Your task to perform on an android device: Search for a runner rug on Crate & Barrel. Image 0: 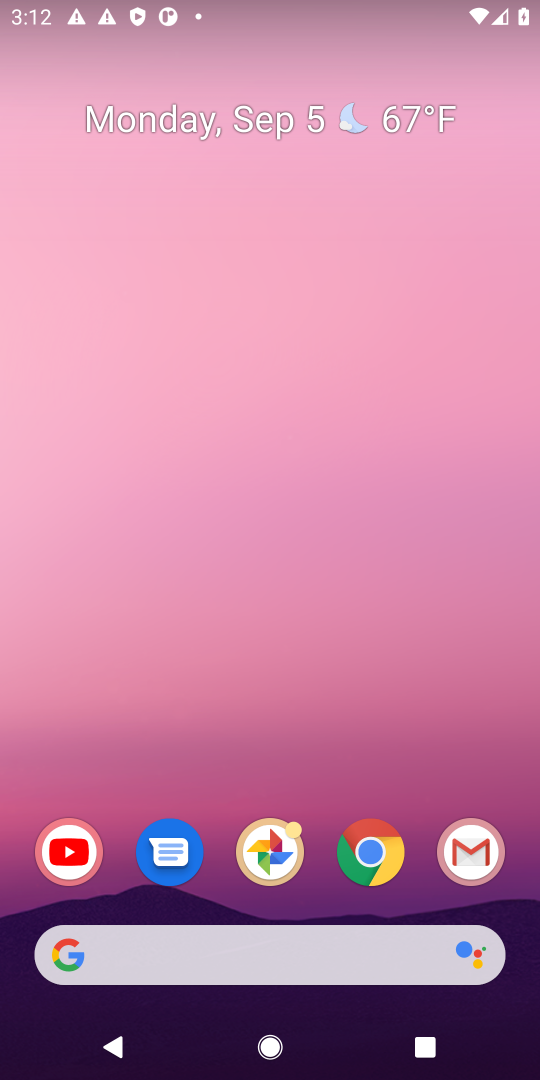
Step 0: click (372, 853)
Your task to perform on an android device: Search for a runner rug on Crate & Barrel. Image 1: 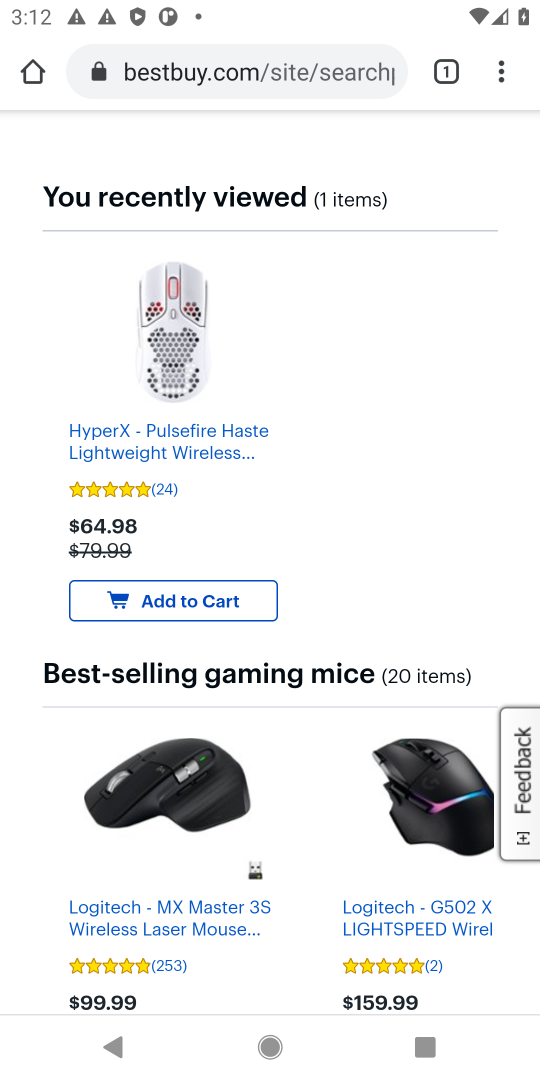
Step 1: click (284, 46)
Your task to perform on an android device: Search for a runner rug on Crate & Barrel. Image 2: 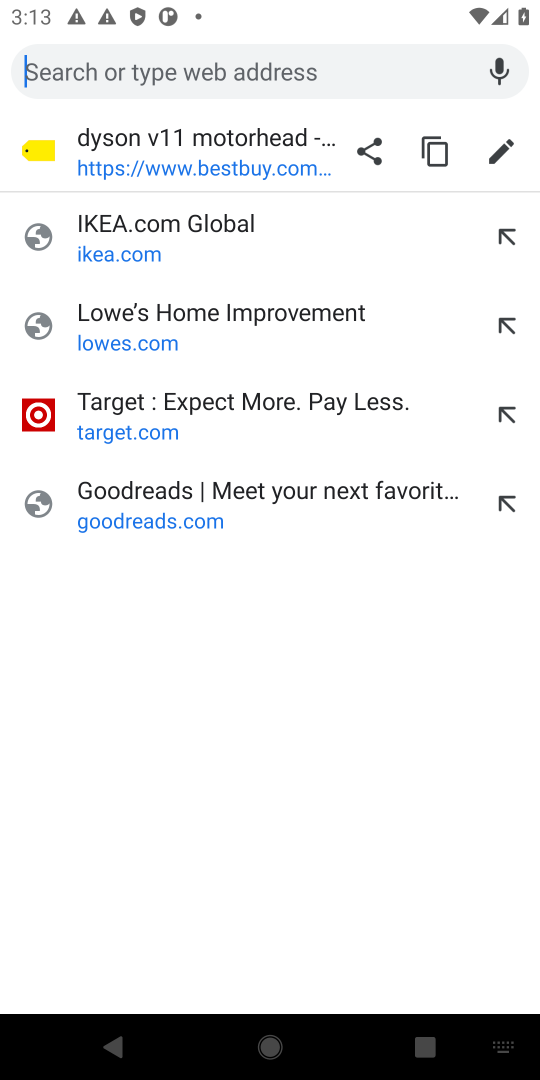
Step 2: type "Crate & Barrel"
Your task to perform on an android device: Search for a runner rug on Crate & Barrel. Image 3: 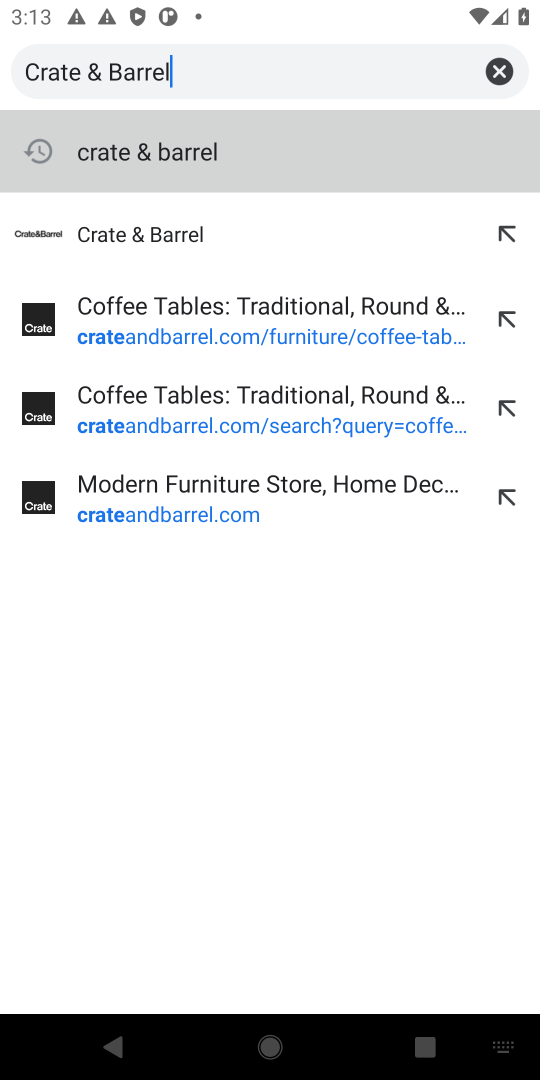
Step 3: click (134, 236)
Your task to perform on an android device: Search for a runner rug on Crate & Barrel. Image 4: 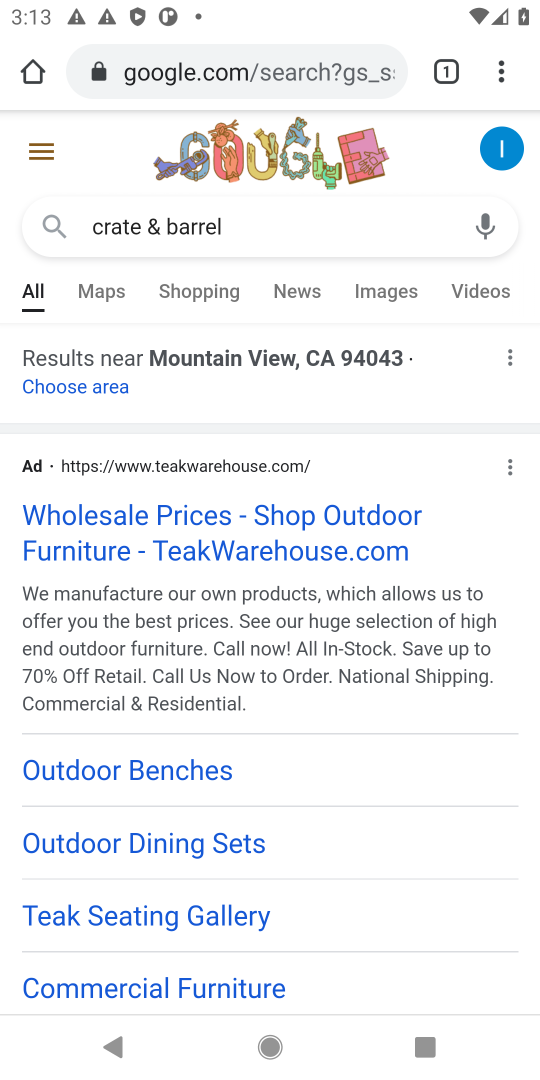
Step 4: drag from (338, 851) to (314, 486)
Your task to perform on an android device: Search for a runner rug on Crate & Barrel. Image 5: 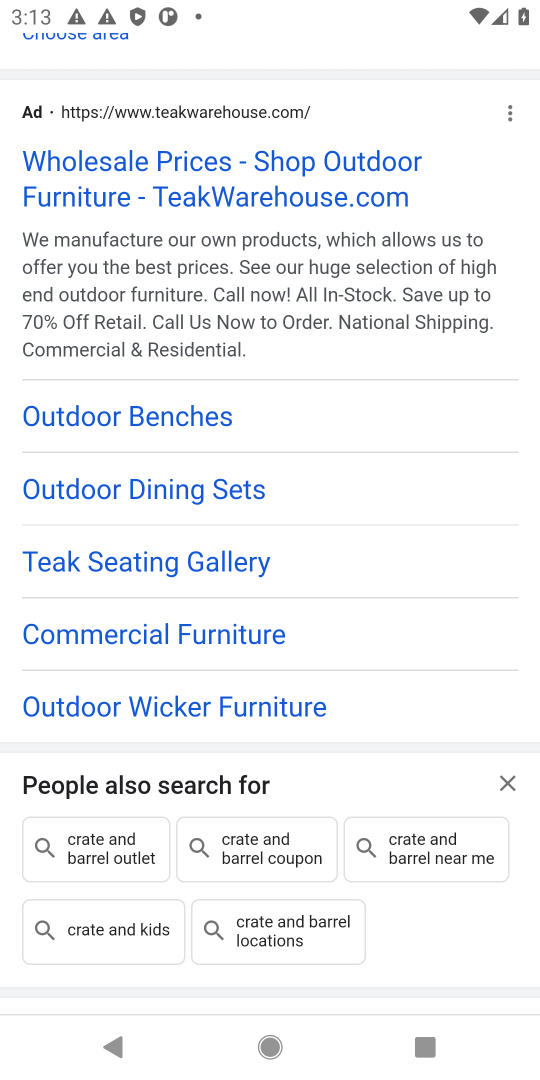
Step 5: drag from (337, 768) to (317, 250)
Your task to perform on an android device: Search for a runner rug on Crate & Barrel. Image 6: 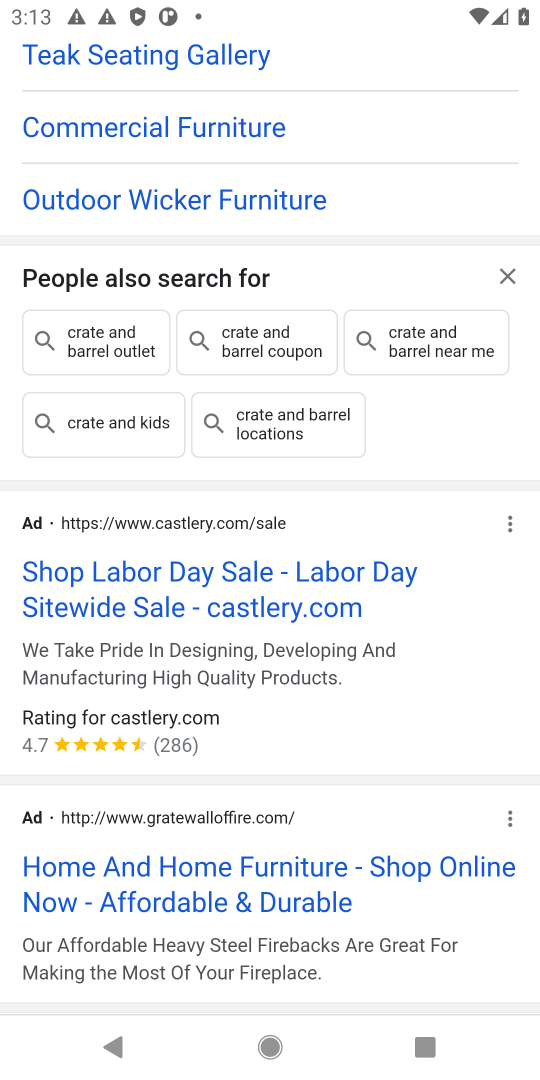
Step 6: drag from (334, 855) to (317, 297)
Your task to perform on an android device: Search for a runner rug on Crate & Barrel. Image 7: 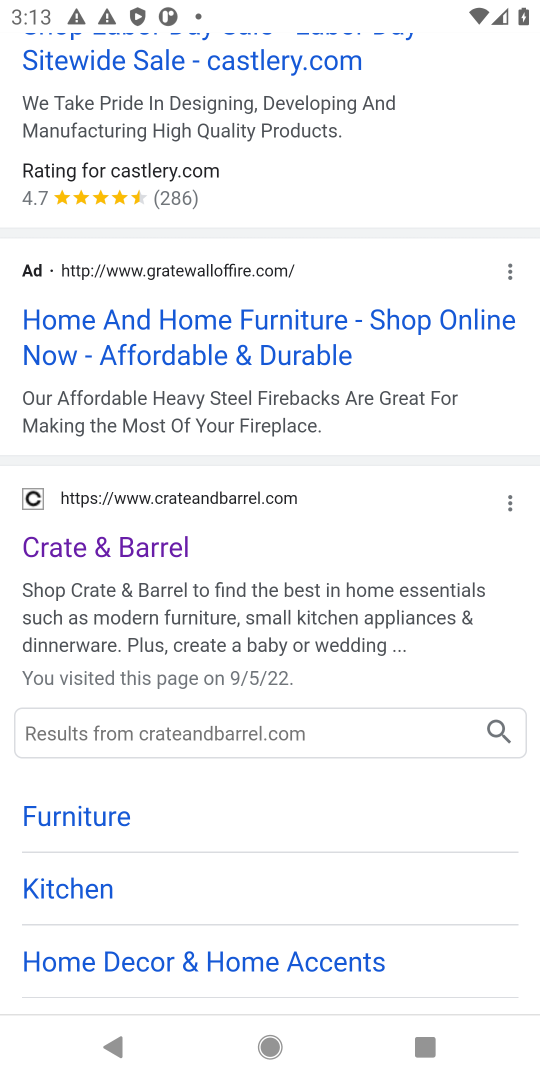
Step 7: click (88, 550)
Your task to perform on an android device: Search for a runner rug on Crate & Barrel. Image 8: 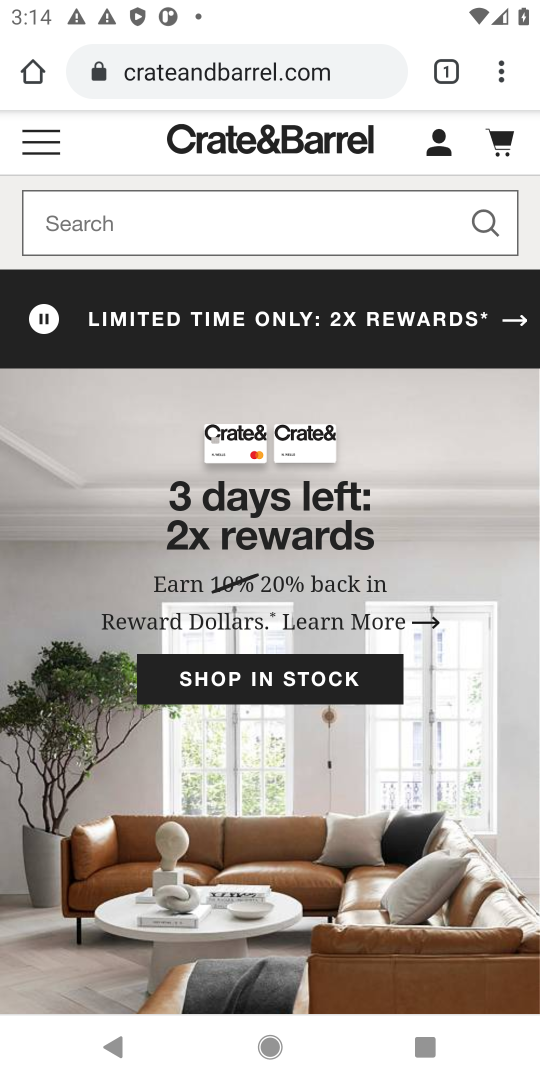
Step 8: click (282, 216)
Your task to perform on an android device: Search for a runner rug on Crate & Barrel. Image 9: 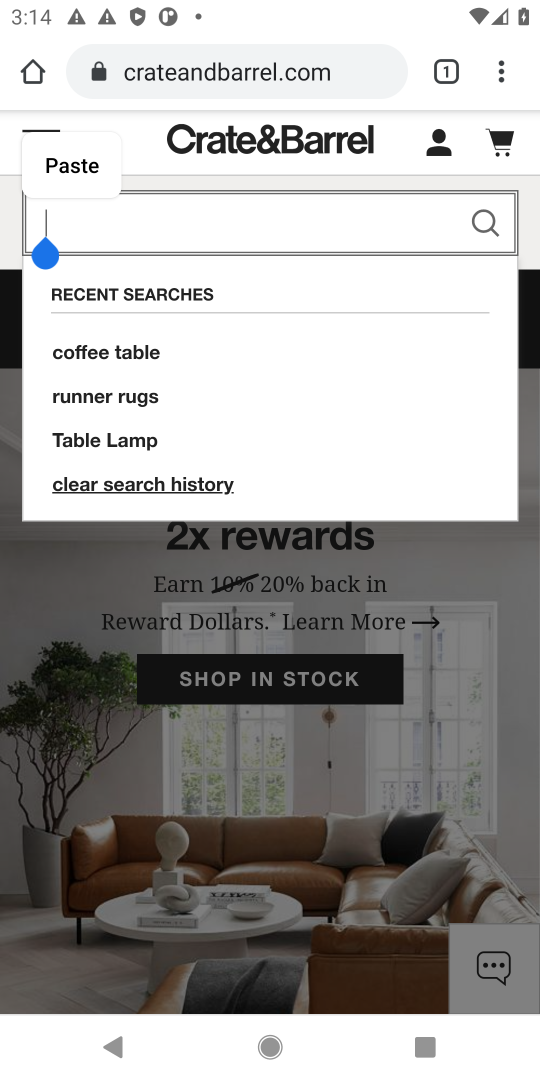
Step 9: click (93, 395)
Your task to perform on an android device: Search for a runner rug on Crate & Barrel. Image 10: 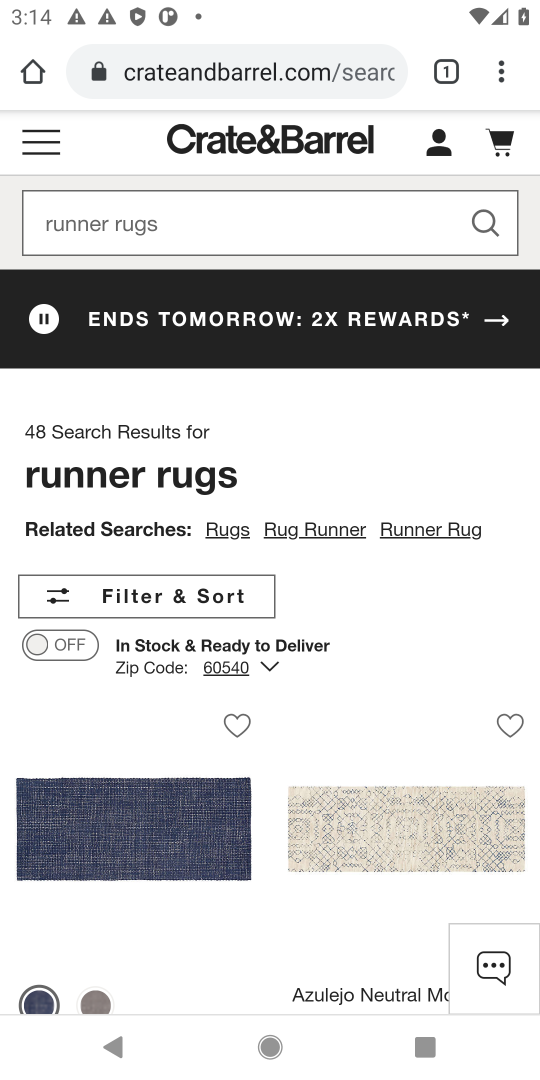
Step 10: click (483, 218)
Your task to perform on an android device: Search for a runner rug on Crate & Barrel. Image 11: 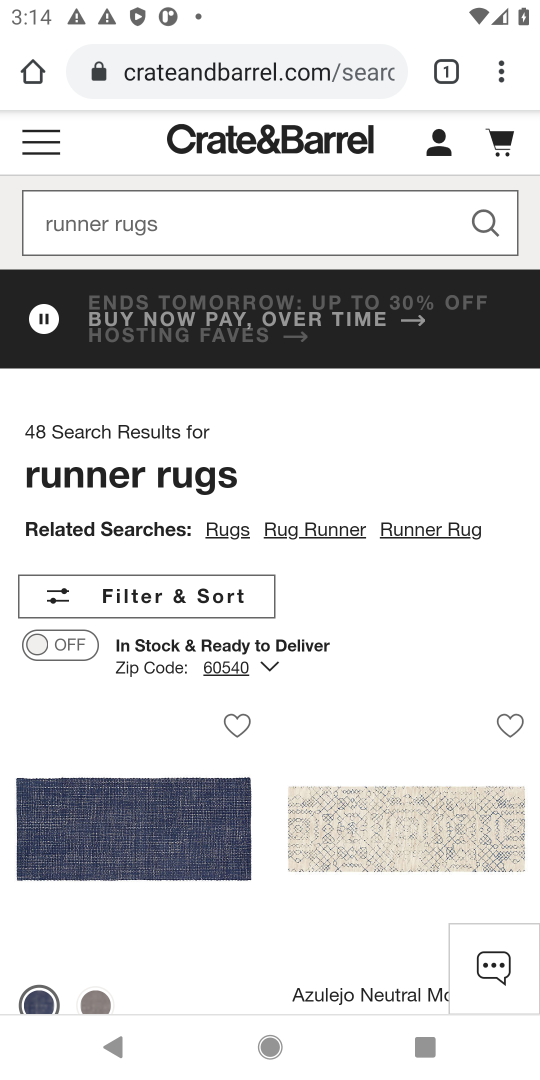
Step 11: drag from (312, 717) to (264, 77)
Your task to perform on an android device: Search for a runner rug on Crate & Barrel. Image 12: 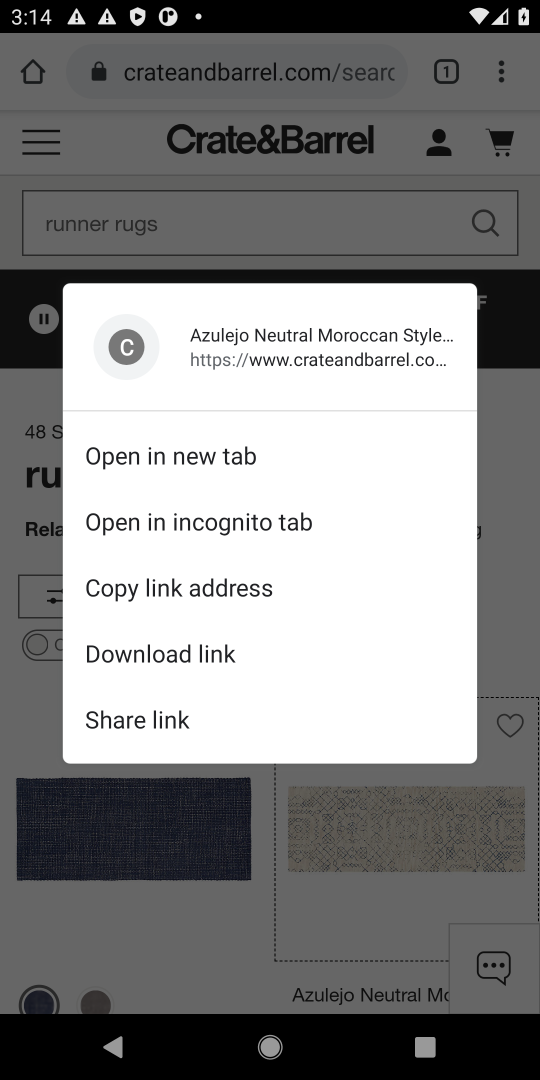
Step 12: click (262, 879)
Your task to perform on an android device: Search for a runner rug on Crate & Barrel. Image 13: 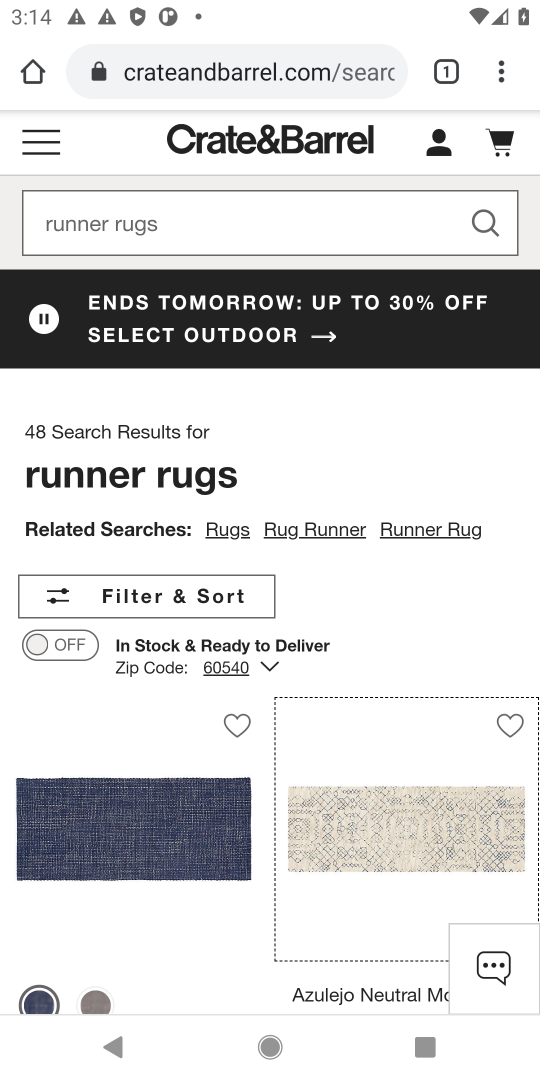
Step 13: task complete